Your task to perform on an android device: refresh tabs in the chrome app Image 0: 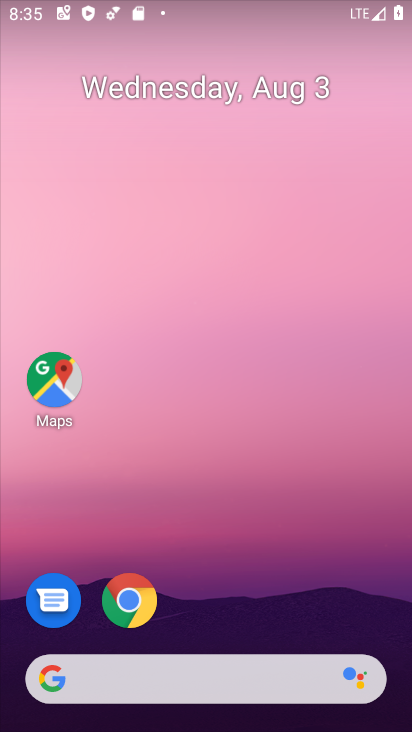
Step 0: click (132, 613)
Your task to perform on an android device: refresh tabs in the chrome app Image 1: 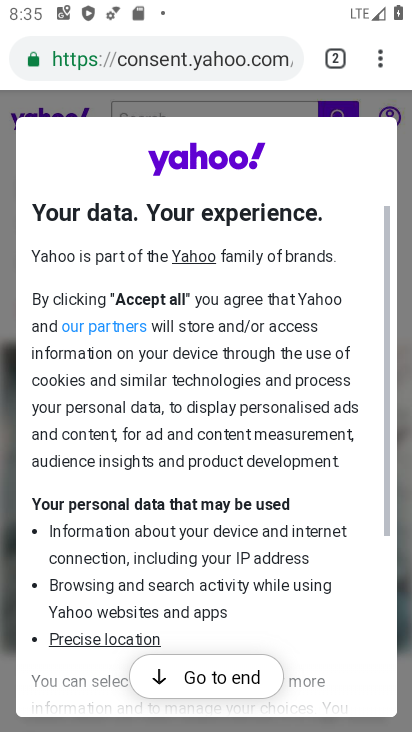
Step 1: click (377, 63)
Your task to perform on an android device: refresh tabs in the chrome app Image 2: 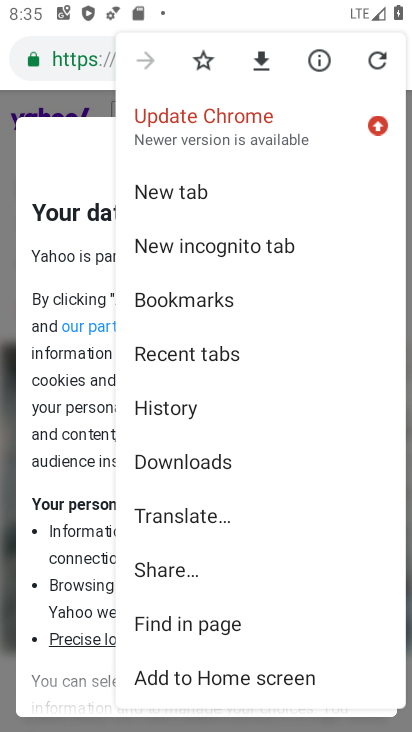
Step 2: click (379, 64)
Your task to perform on an android device: refresh tabs in the chrome app Image 3: 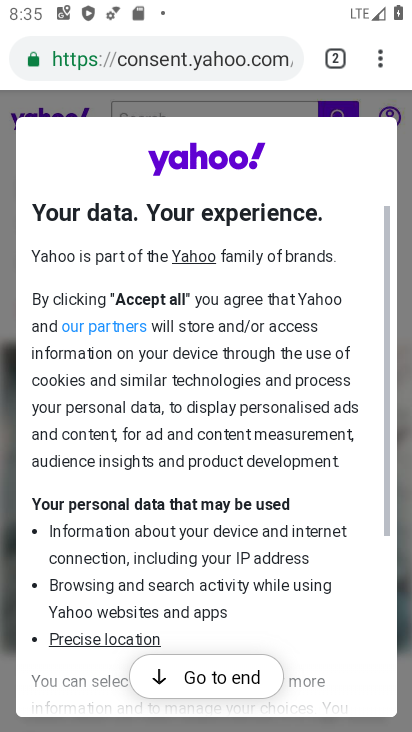
Step 3: task complete